Your task to perform on an android device: turn off smart reply in the gmail app Image 0: 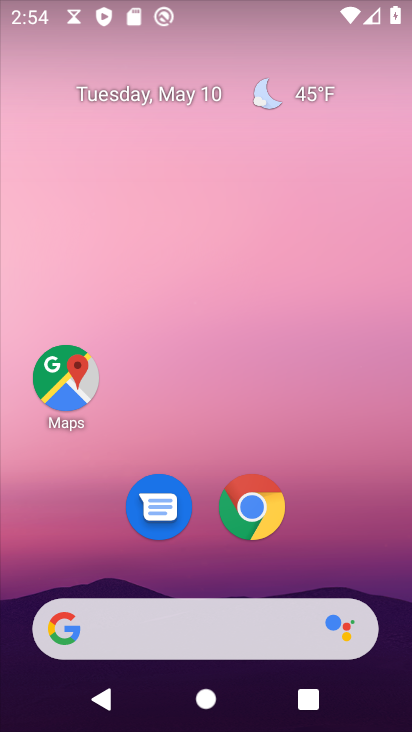
Step 0: drag from (317, 528) to (108, 95)
Your task to perform on an android device: turn off smart reply in the gmail app Image 1: 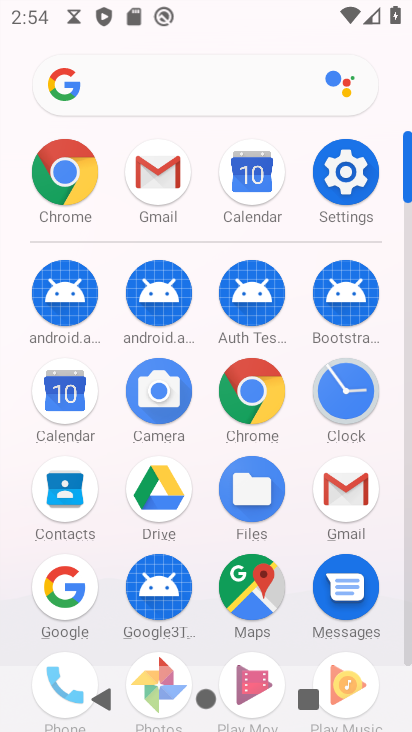
Step 1: click (350, 485)
Your task to perform on an android device: turn off smart reply in the gmail app Image 2: 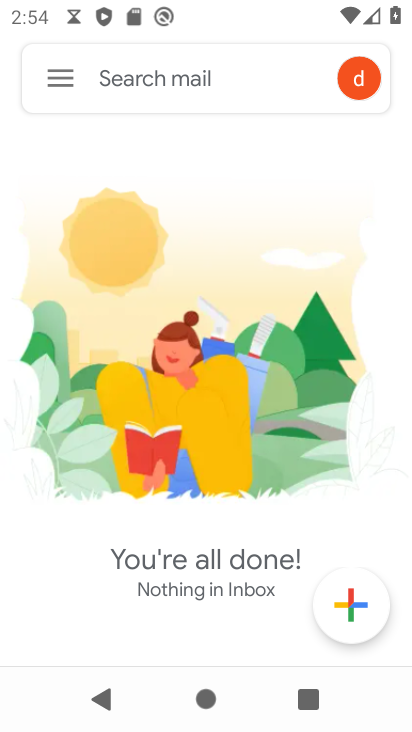
Step 2: click (59, 80)
Your task to perform on an android device: turn off smart reply in the gmail app Image 3: 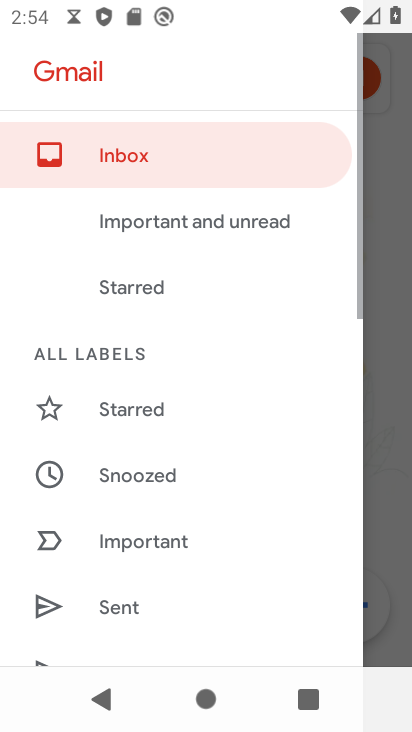
Step 3: drag from (165, 587) to (191, 89)
Your task to perform on an android device: turn off smart reply in the gmail app Image 4: 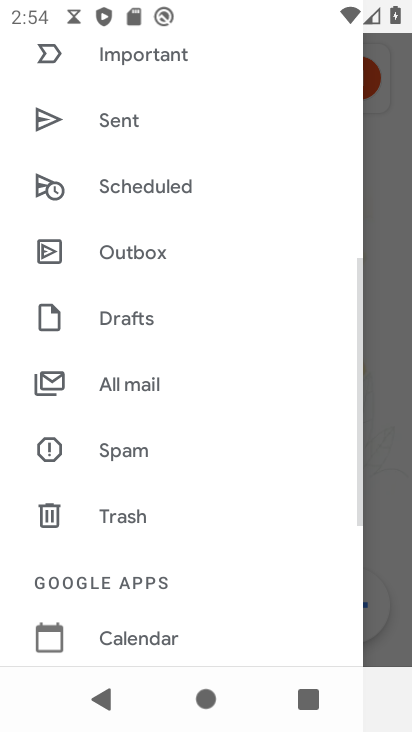
Step 4: drag from (192, 581) to (190, 225)
Your task to perform on an android device: turn off smart reply in the gmail app Image 5: 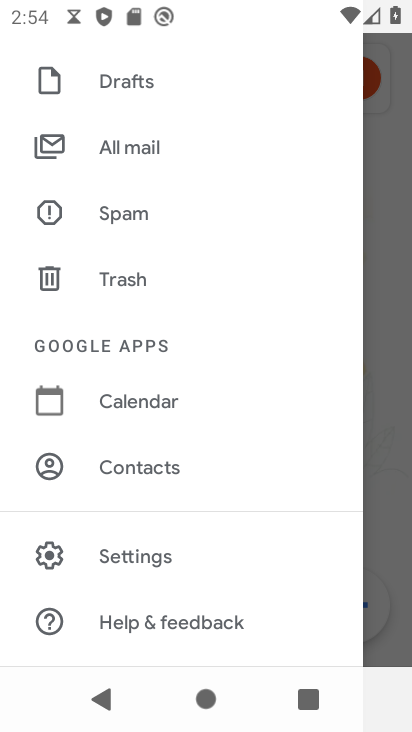
Step 5: click (154, 557)
Your task to perform on an android device: turn off smart reply in the gmail app Image 6: 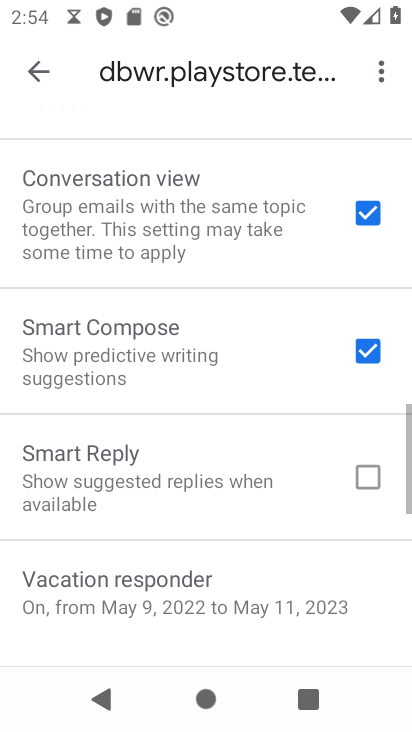
Step 6: task complete